Your task to perform on an android device: change notification settings in the gmail app Image 0: 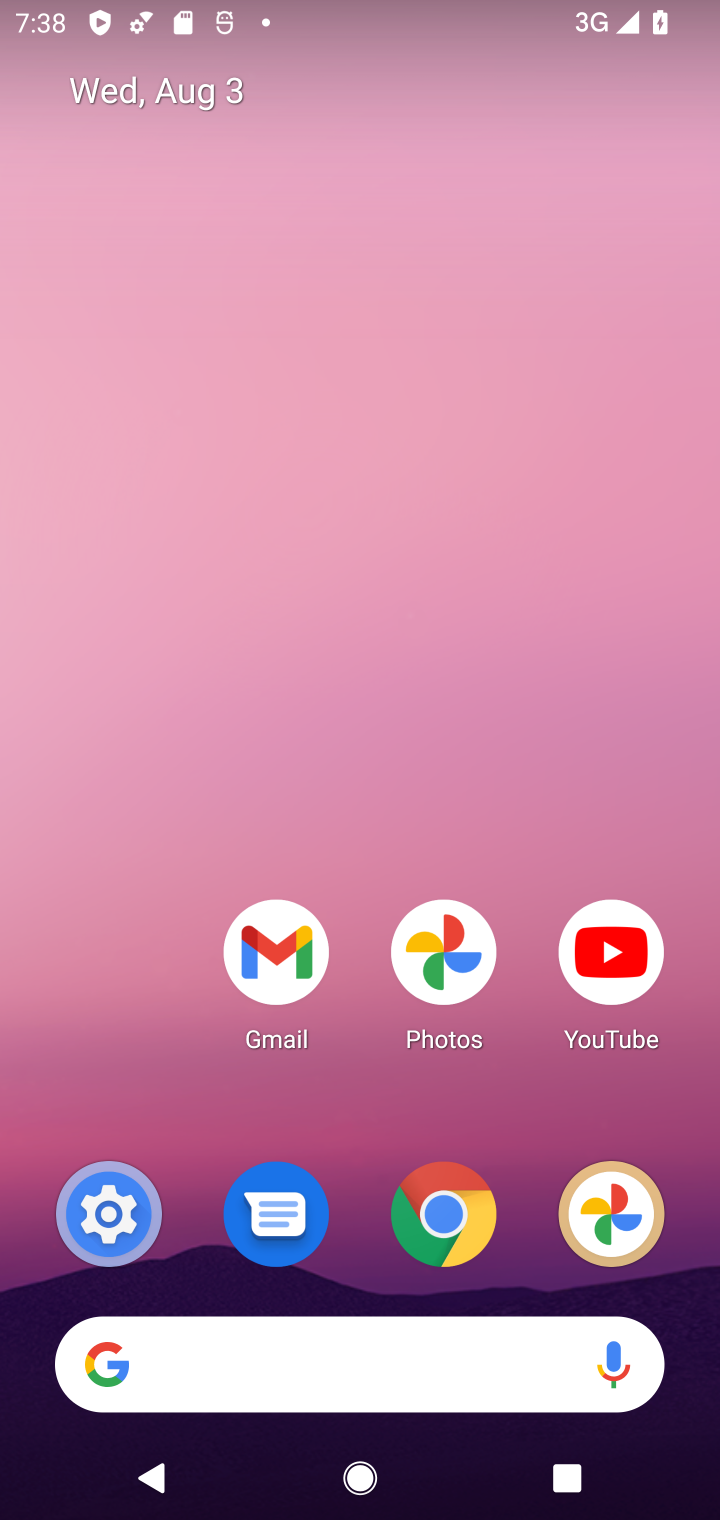
Step 0: drag from (78, 983) to (61, 246)
Your task to perform on an android device: change notification settings in the gmail app Image 1: 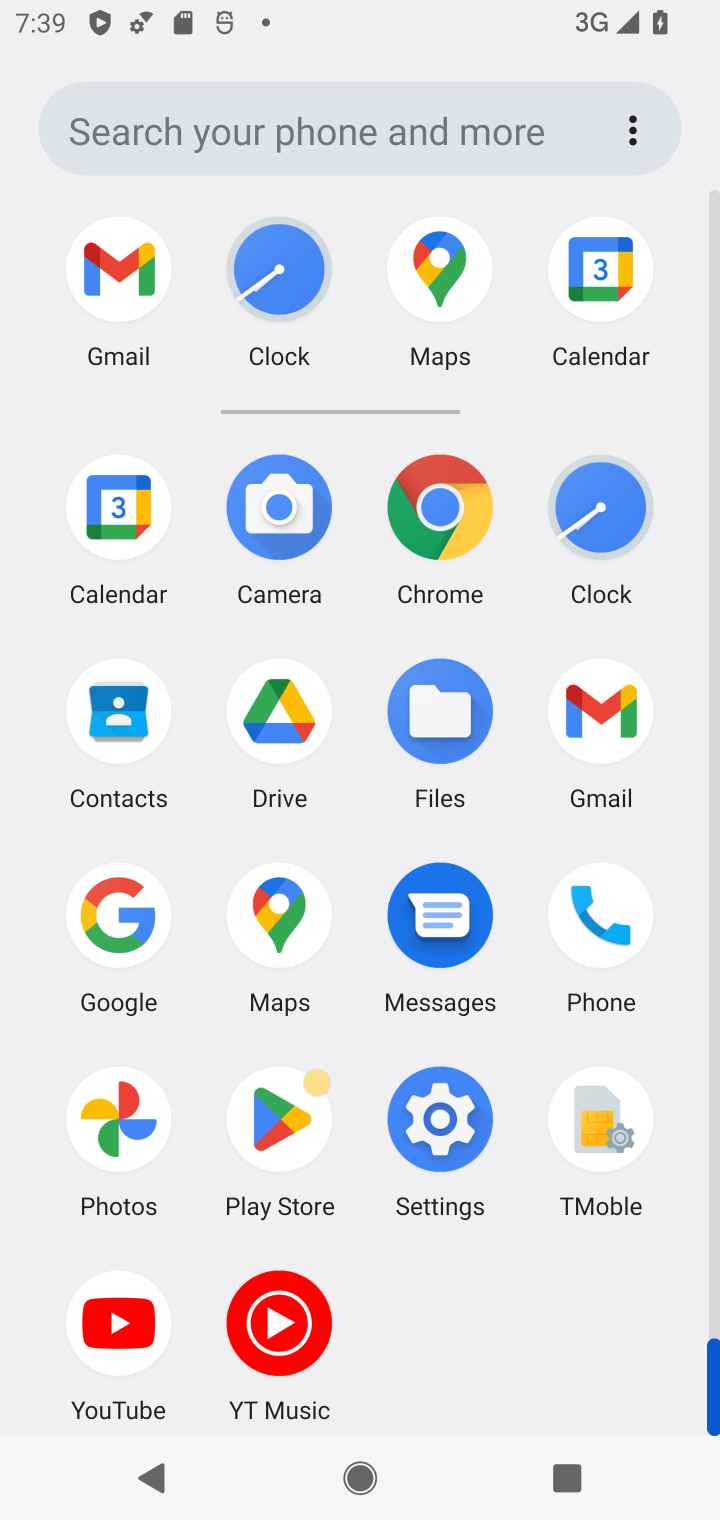
Step 1: click (114, 238)
Your task to perform on an android device: change notification settings in the gmail app Image 2: 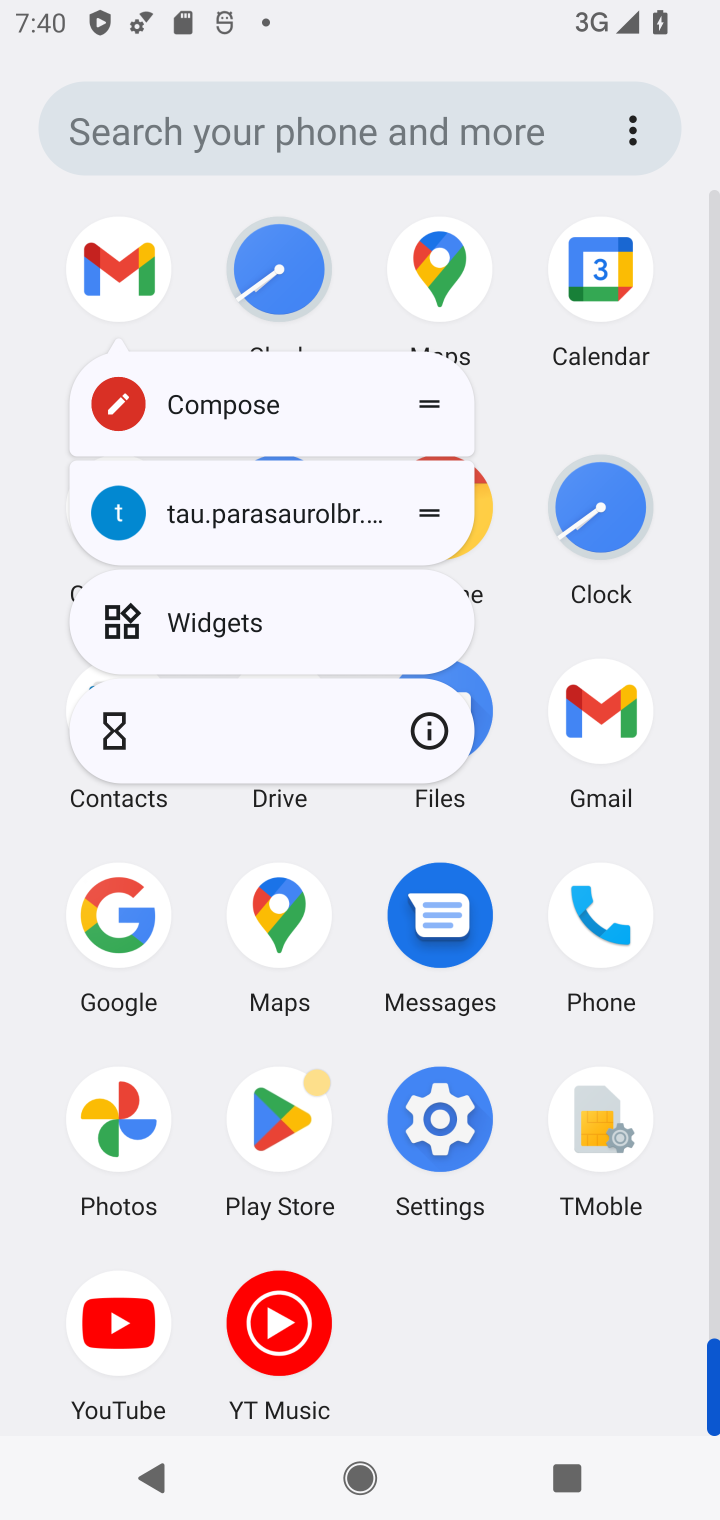
Step 2: click (117, 237)
Your task to perform on an android device: change notification settings in the gmail app Image 3: 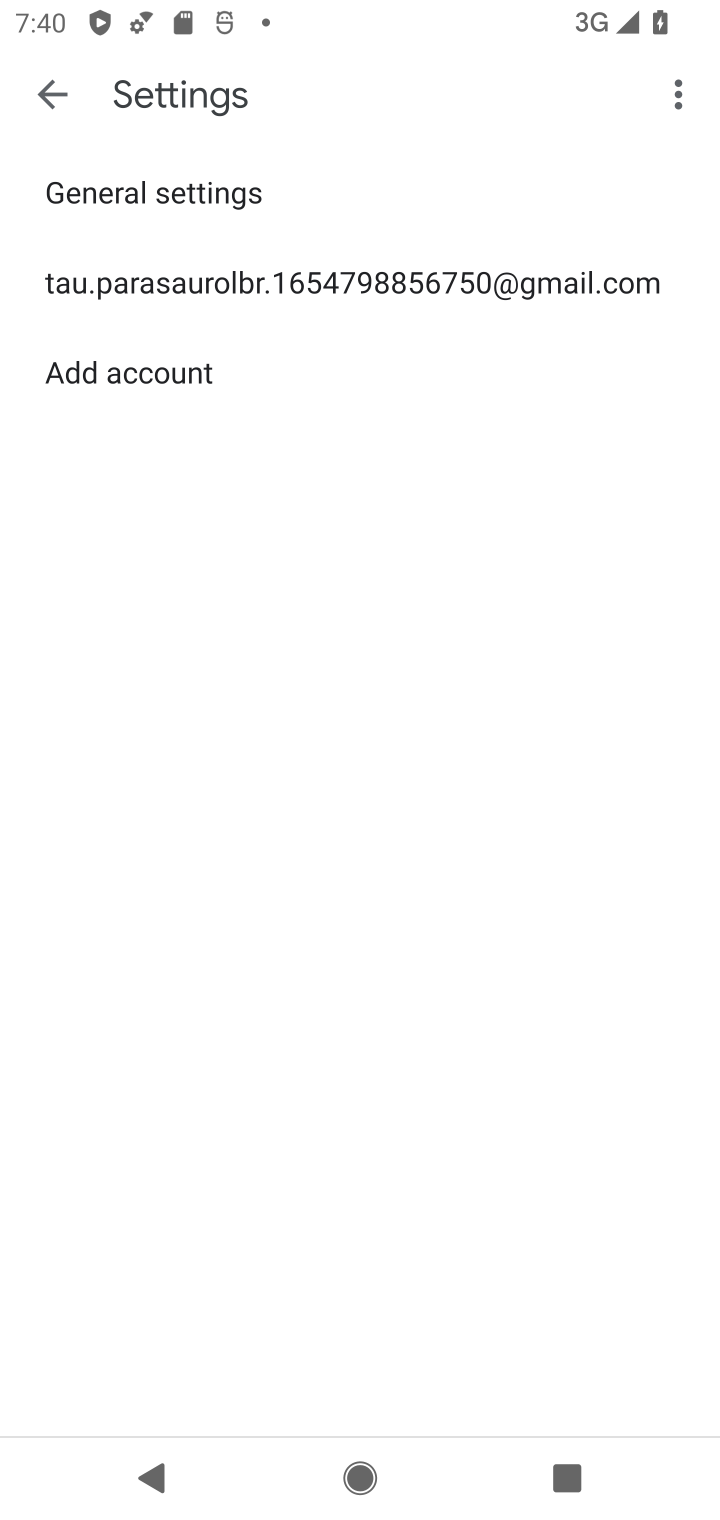
Step 3: click (90, 306)
Your task to perform on an android device: change notification settings in the gmail app Image 4: 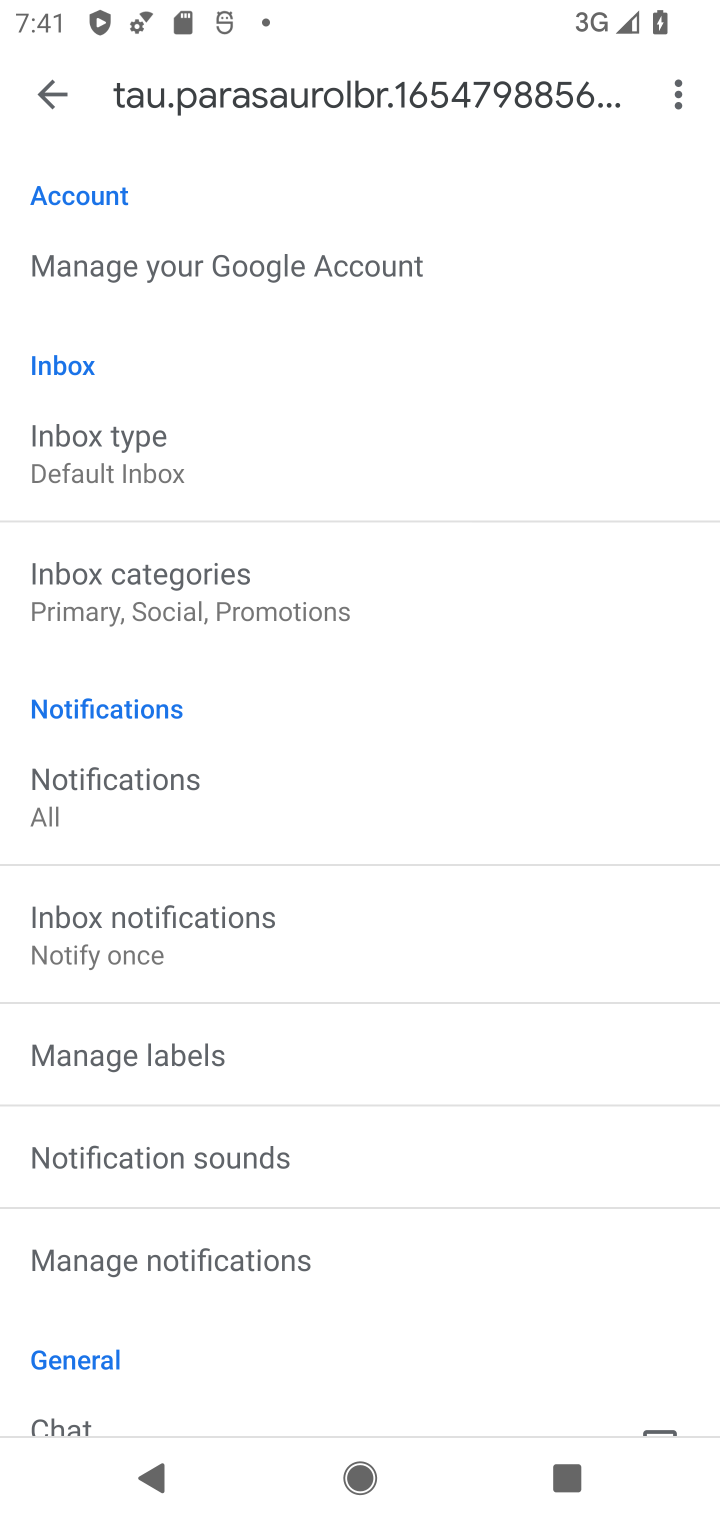
Step 4: click (79, 766)
Your task to perform on an android device: change notification settings in the gmail app Image 5: 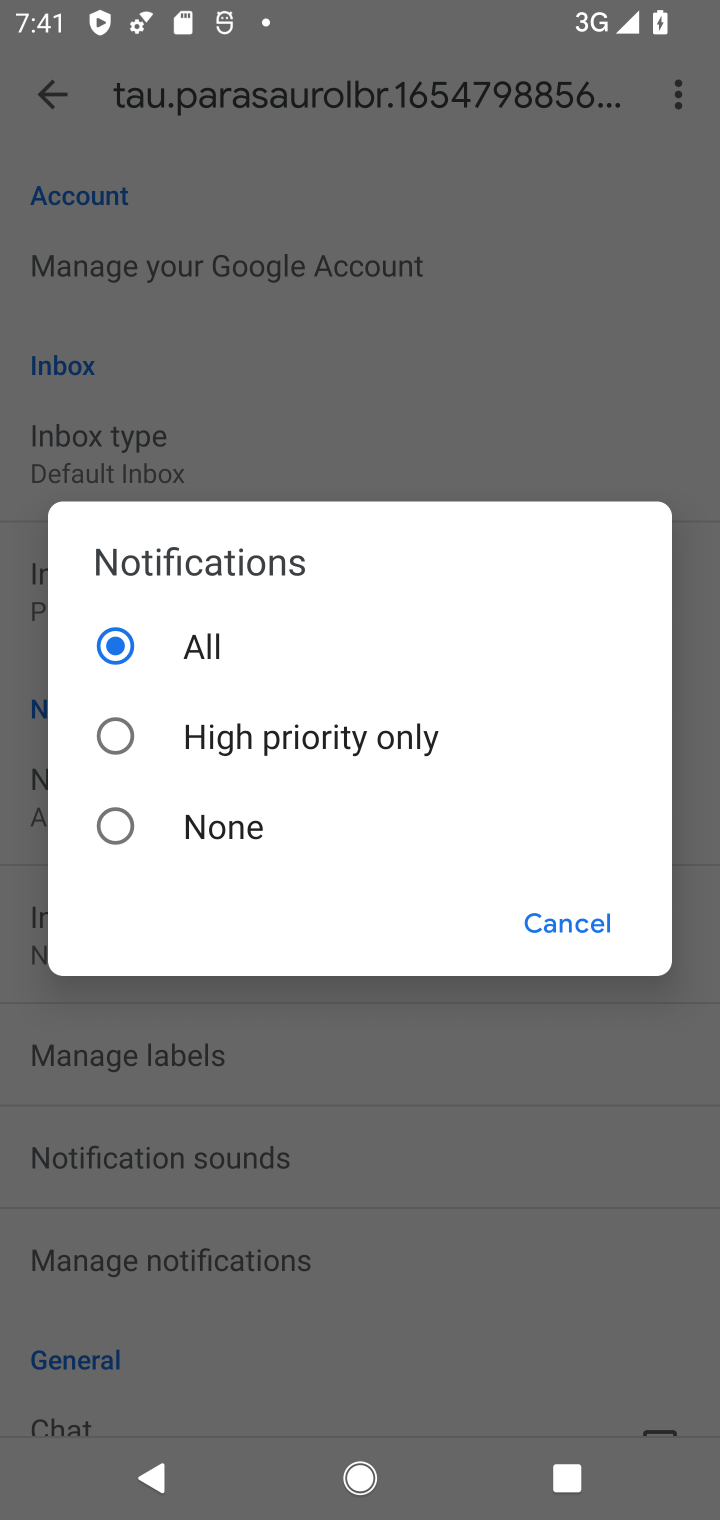
Step 5: click (286, 747)
Your task to perform on an android device: change notification settings in the gmail app Image 6: 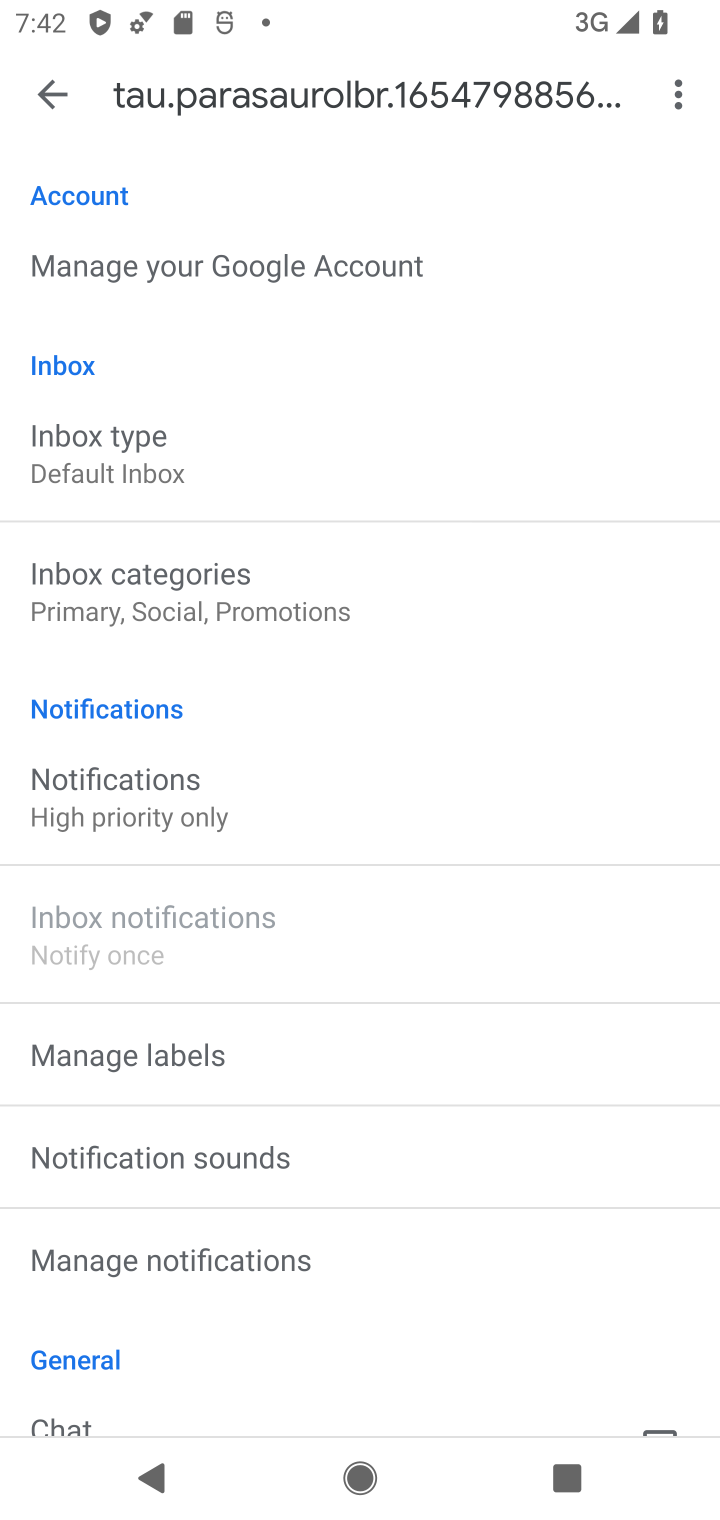
Step 6: task complete